Your task to perform on an android device: Go to privacy settings Image 0: 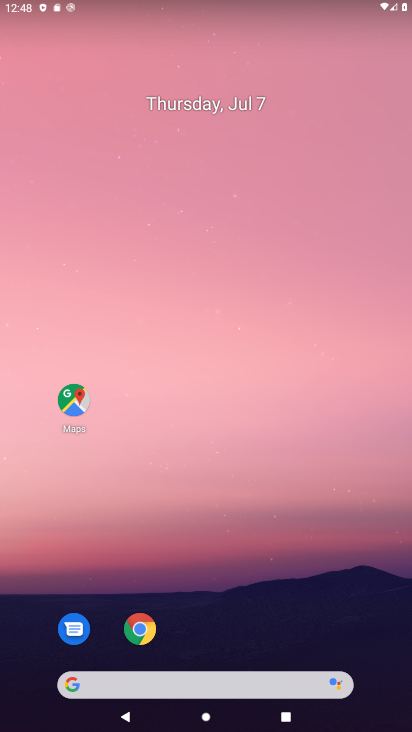
Step 0: click (239, 204)
Your task to perform on an android device: Go to privacy settings Image 1: 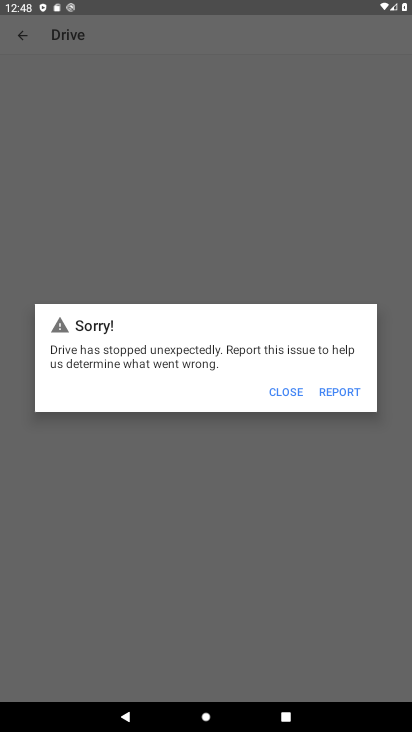
Step 1: press home button
Your task to perform on an android device: Go to privacy settings Image 2: 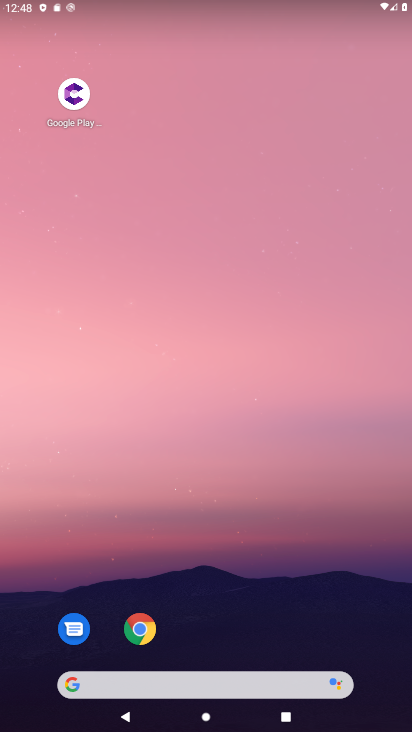
Step 2: drag from (265, 561) to (286, 111)
Your task to perform on an android device: Go to privacy settings Image 3: 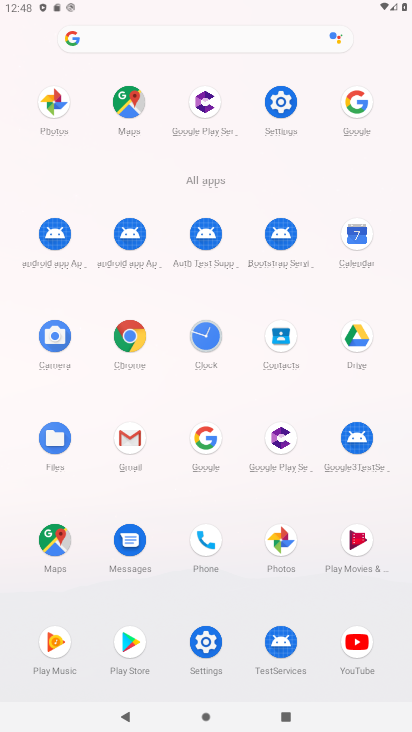
Step 3: click (283, 96)
Your task to perform on an android device: Go to privacy settings Image 4: 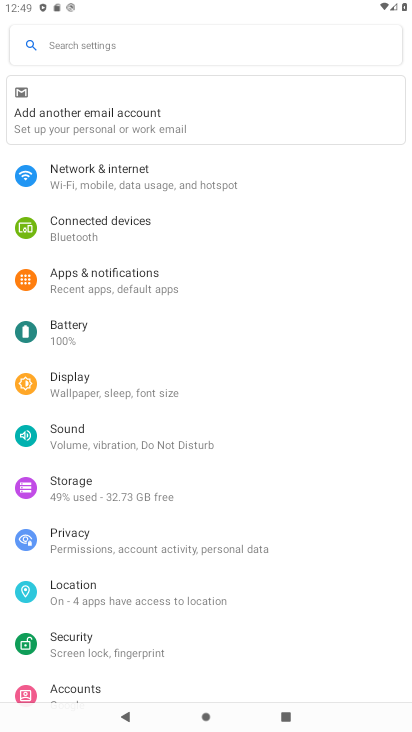
Step 4: click (93, 539)
Your task to perform on an android device: Go to privacy settings Image 5: 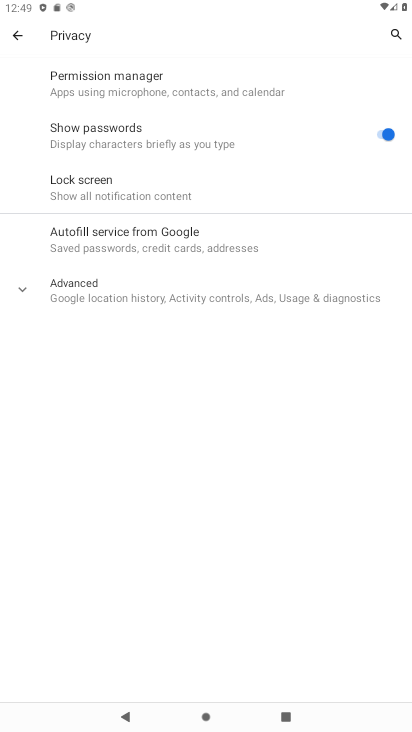
Step 5: task complete